Your task to perform on an android device: change text size in settings app Image 0: 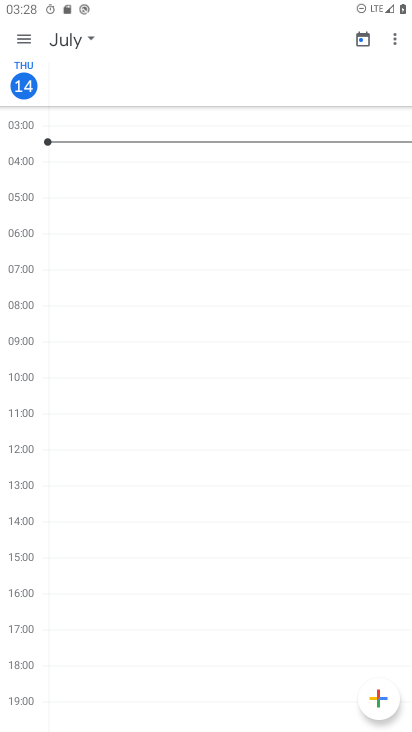
Step 0: press home button
Your task to perform on an android device: change text size in settings app Image 1: 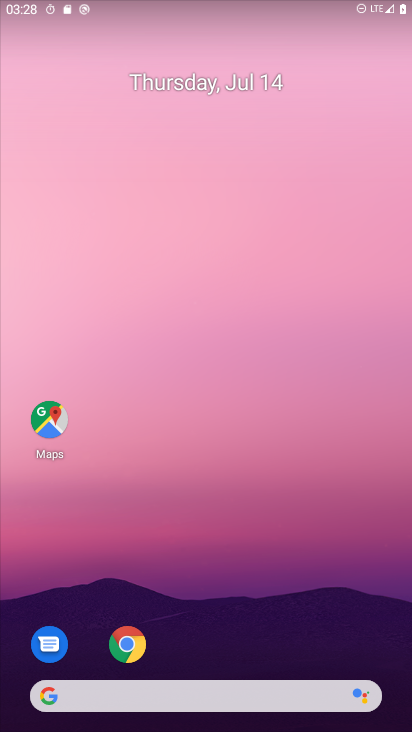
Step 1: drag from (279, 611) to (255, 79)
Your task to perform on an android device: change text size in settings app Image 2: 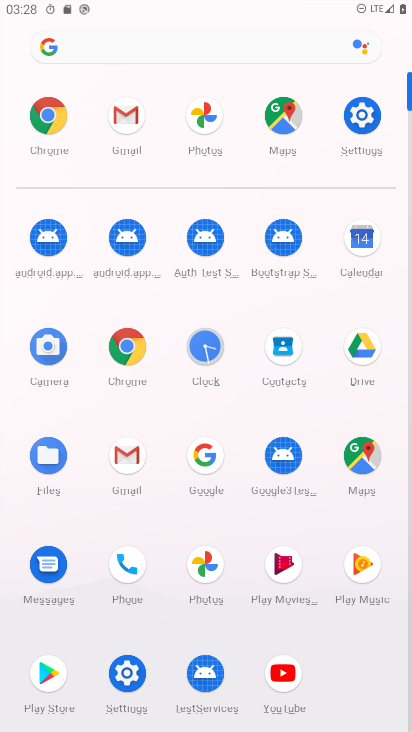
Step 2: click (364, 113)
Your task to perform on an android device: change text size in settings app Image 3: 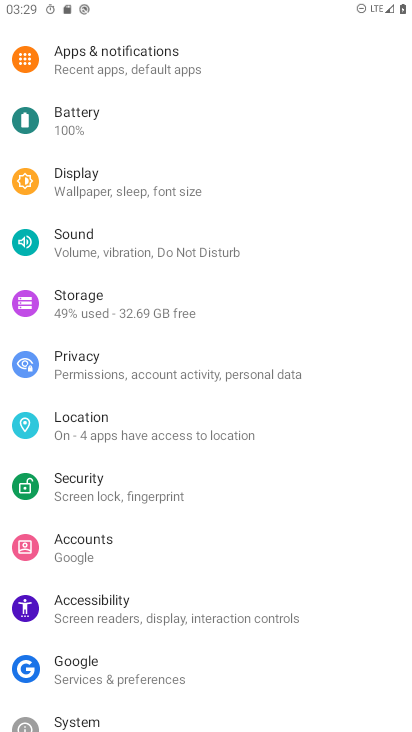
Step 3: click (120, 194)
Your task to perform on an android device: change text size in settings app Image 4: 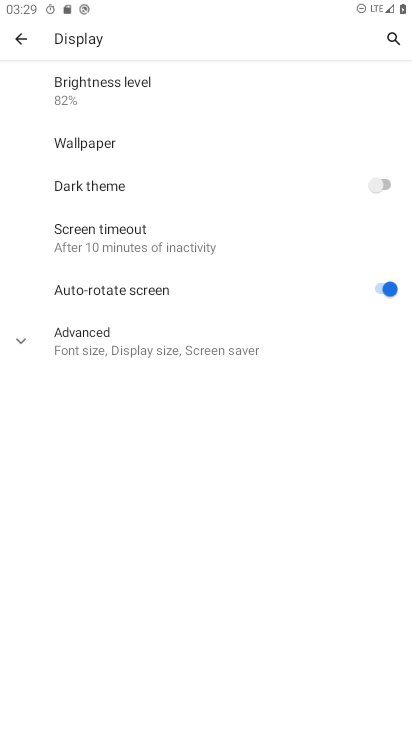
Step 4: click (93, 333)
Your task to perform on an android device: change text size in settings app Image 5: 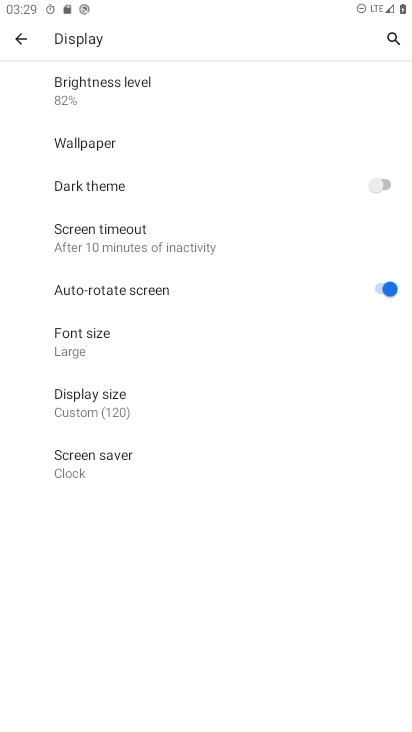
Step 5: click (79, 349)
Your task to perform on an android device: change text size in settings app Image 6: 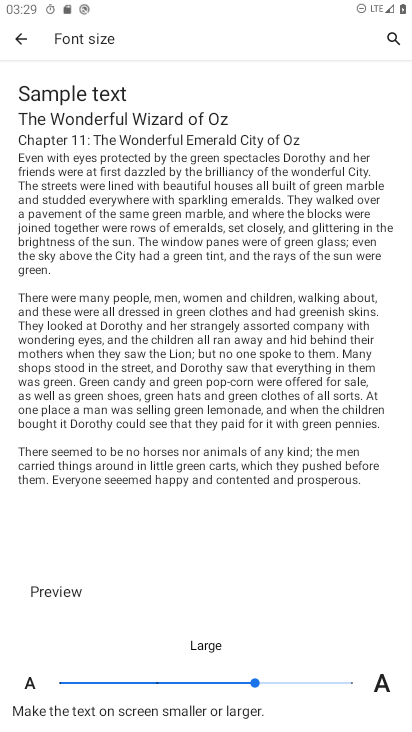
Step 6: click (103, 683)
Your task to perform on an android device: change text size in settings app Image 7: 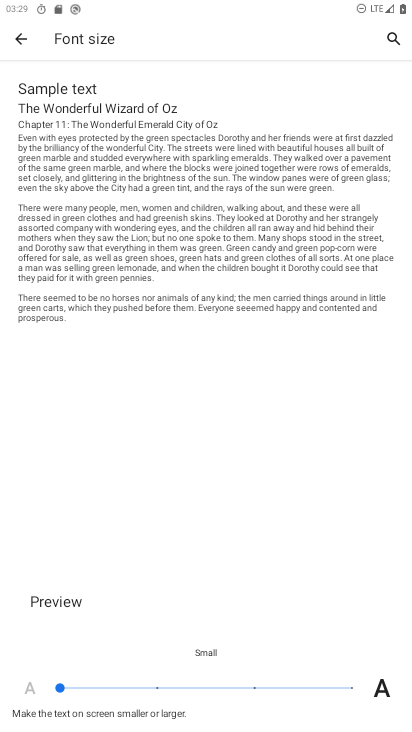
Step 7: task complete